Your task to perform on an android device: Open wifi settings Image 0: 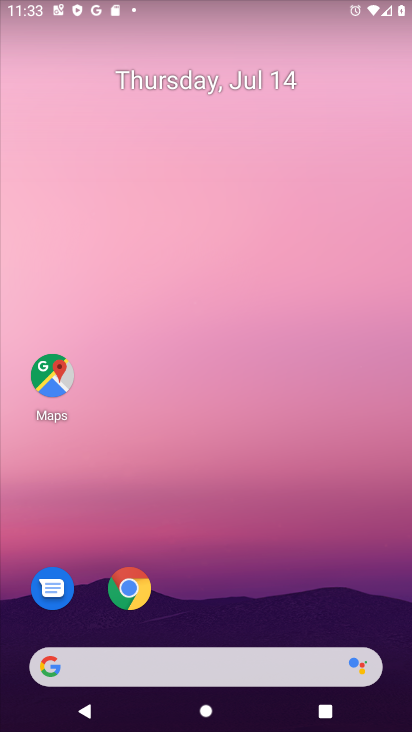
Step 0: press home button
Your task to perform on an android device: Open wifi settings Image 1: 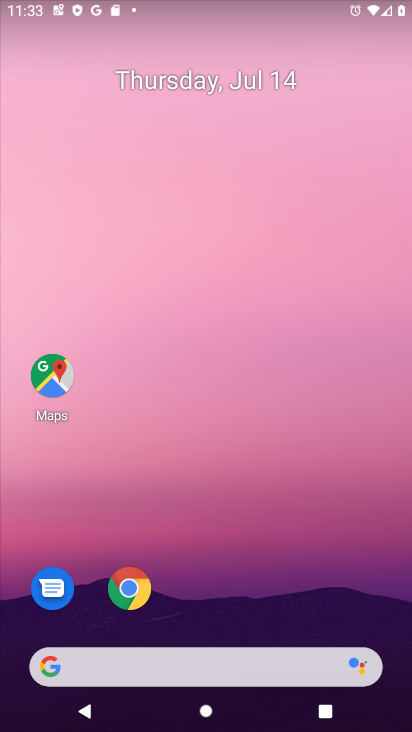
Step 1: drag from (218, 658) to (161, 130)
Your task to perform on an android device: Open wifi settings Image 2: 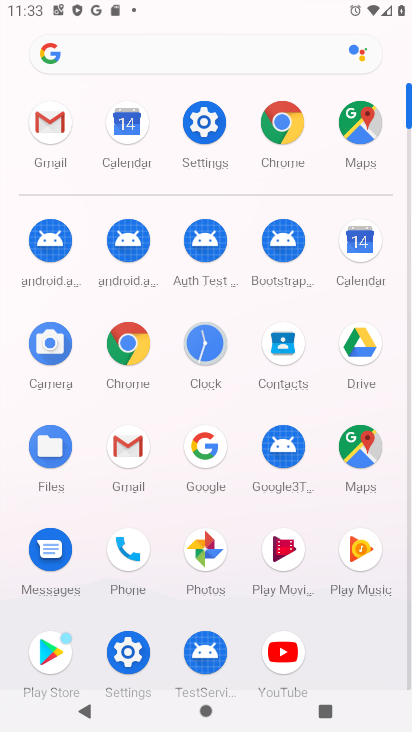
Step 2: drag from (385, 230) to (356, 549)
Your task to perform on an android device: Open wifi settings Image 3: 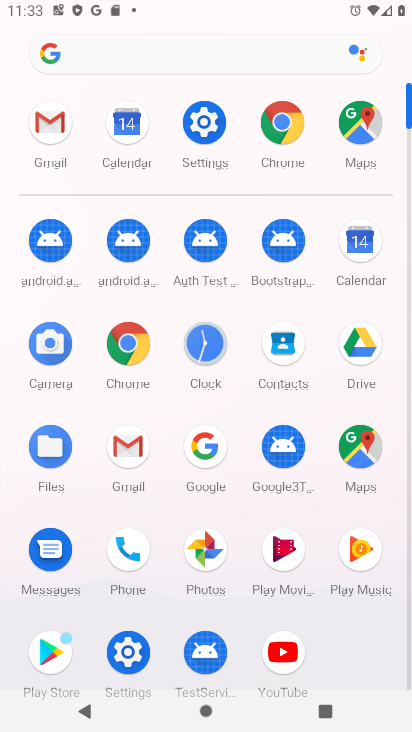
Step 3: click (347, 6)
Your task to perform on an android device: Open wifi settings Image 4: 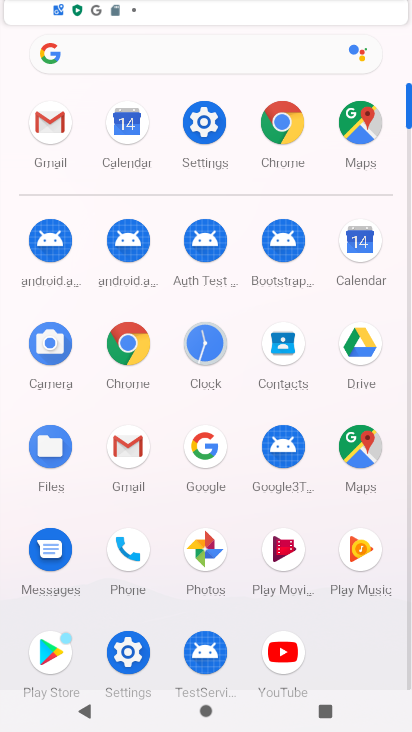
Step 4: drag from (347, 127) to (411, 408)
Your task to perform on an android device: Open wifi settings Image 5: 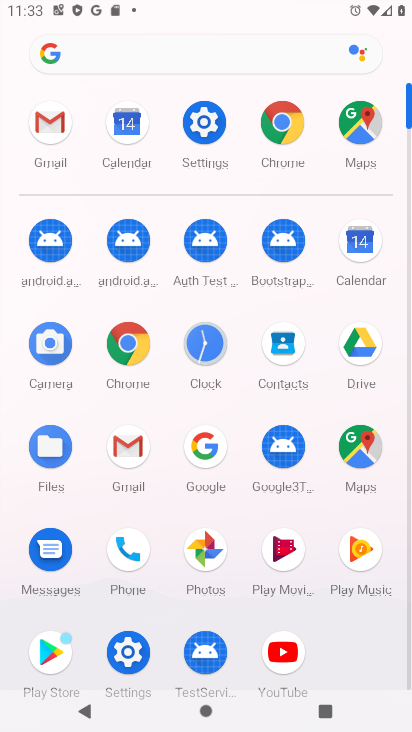
Step 5: drag from (364, 4) to (252, 594)
Your task to perform on an android device: Open wifi settings Image 6: 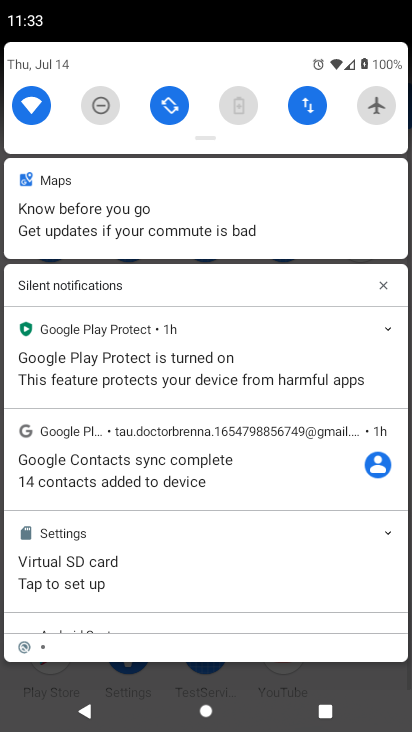
Step 6: click (42, 114)
Your task to perform on an android device: Open wifi settings Image 7: 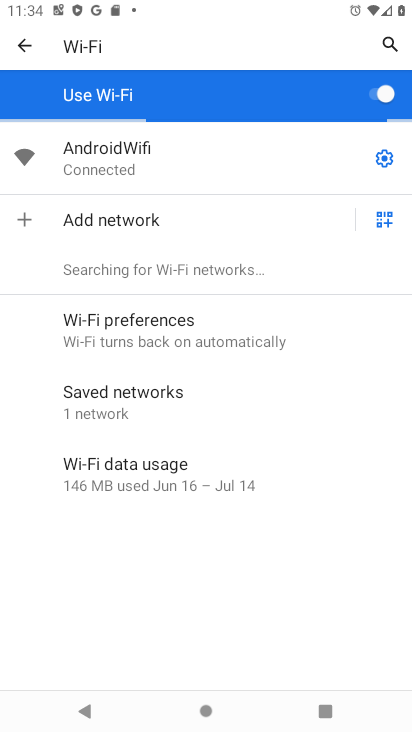
Step 7: task complete